Your task to perform on an android device: Open the stopwatch Image 0: 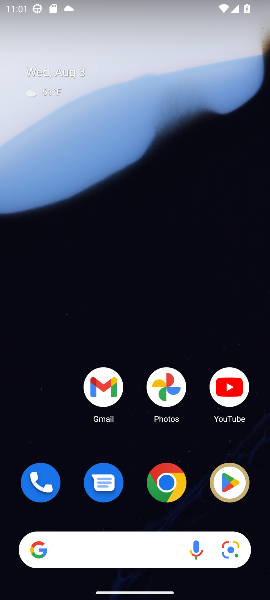
Step 0: drag from (132, 531) to (122, 49)
Your task to perform on an android device: Open the stopwatch Image 1: 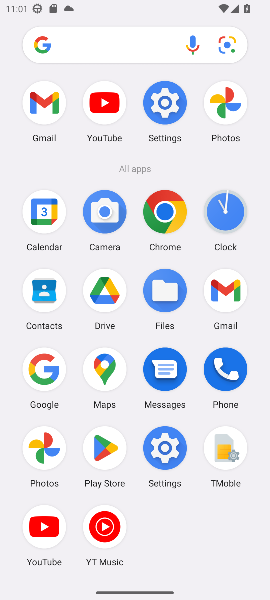
Step 1: click (219, 225)
Your task to perform on an android device: Open the stopwatch Image 2: 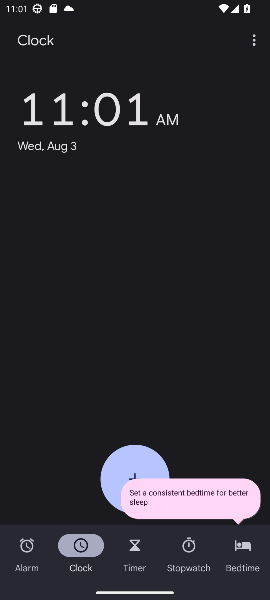
Step 2: click (186, 555)
Your task to perform on an android device: Open the stopwatch Image 3: 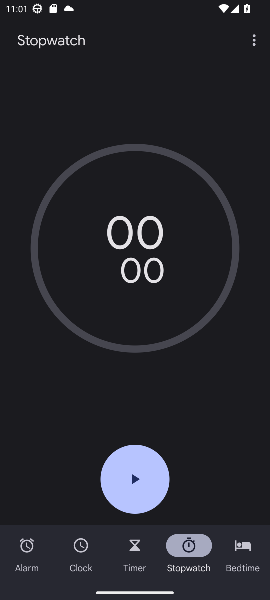
Step 3: task complete